Your task to perform on an android device: add a contact in the contacts app Image 0: 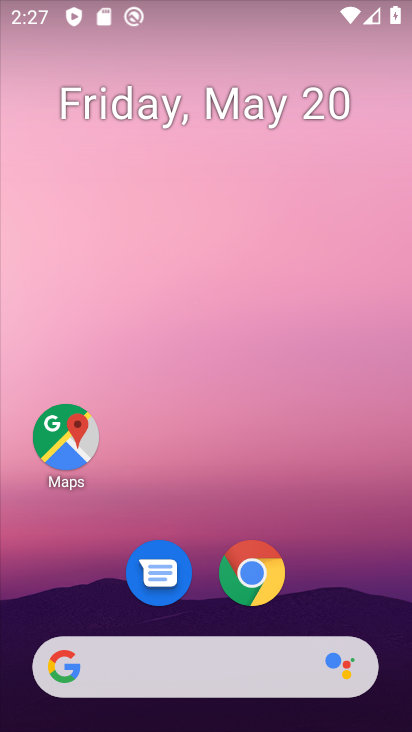
Step 0: drag from (326, 614) to (247, 71)
Your task to perform on an android device: add a contact in the contacts app Image 1: 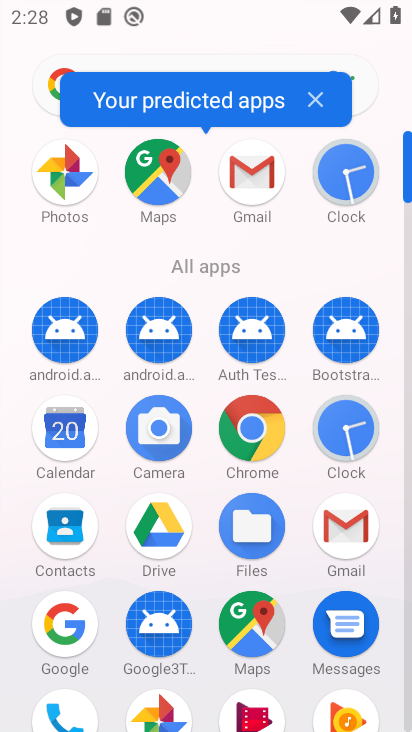
Step 1: click (60, 523)
Your task to perform on an android device: add a contact in the contacts app Image 2: 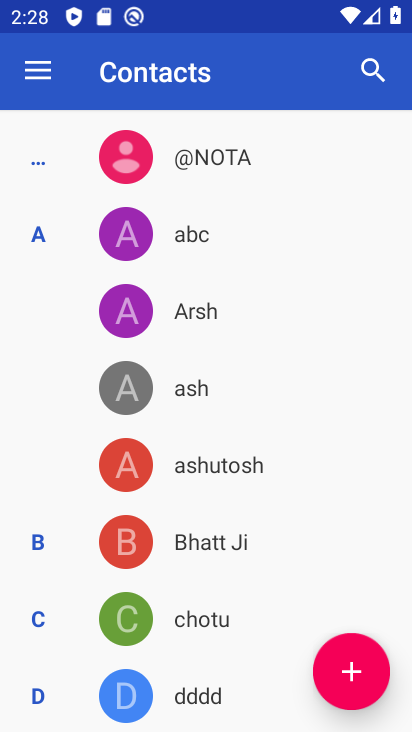
Step 2: click (347, 659)
Your task to perform on an android device: add a contact in the contacts app Image 3: 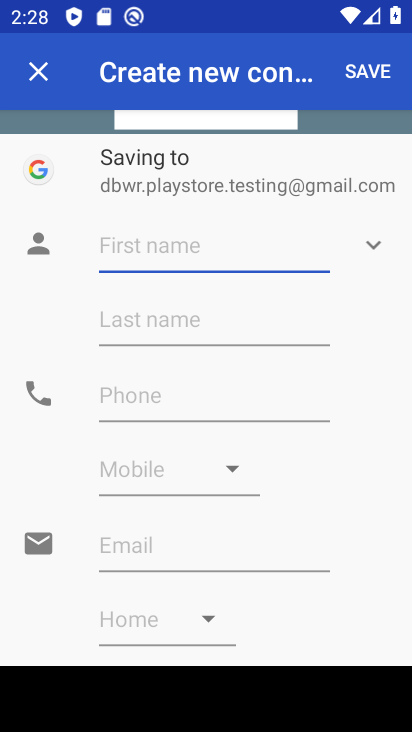
Step 3: click (250, 258)
Your task to perform on an android device: add a contact in the contacts app Image 4: 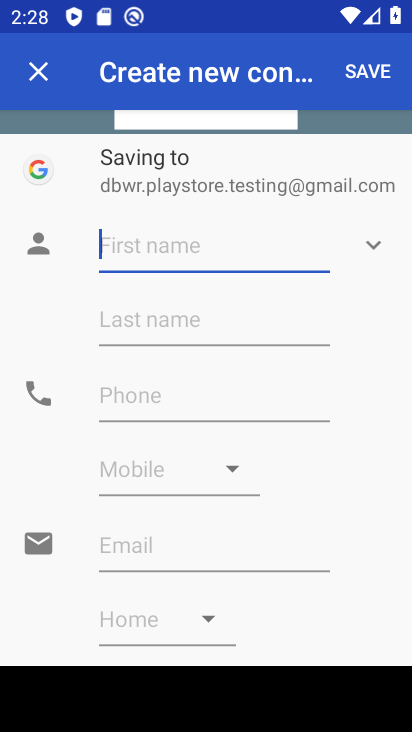
Step 4: type "bkhbkhb"
Your task to perform on an android device: add a contact in the contacts app Image 5: 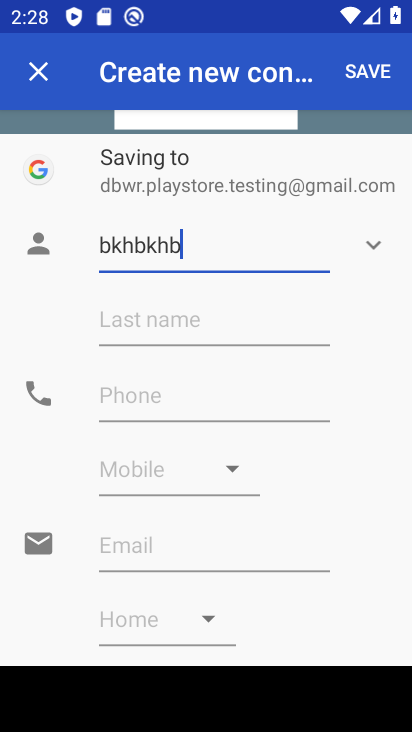
Step 5: click (242, 322)
Your task to perform on an android device: add a contact in the contacts app Image 6: 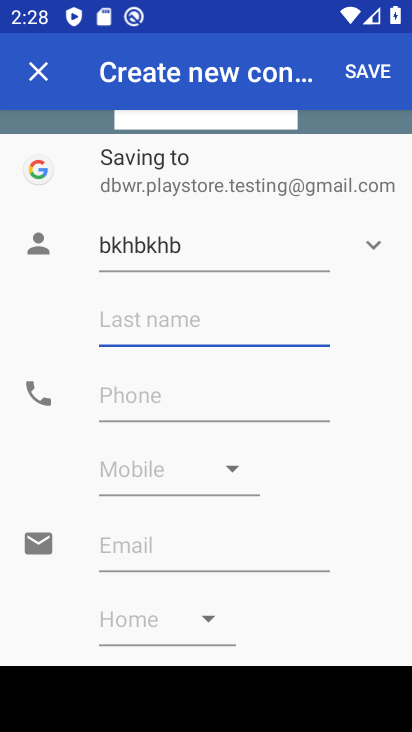
Step 6: click (247, 416)
Your task to perform on an android device: add a contact in the contacts app Image 7: 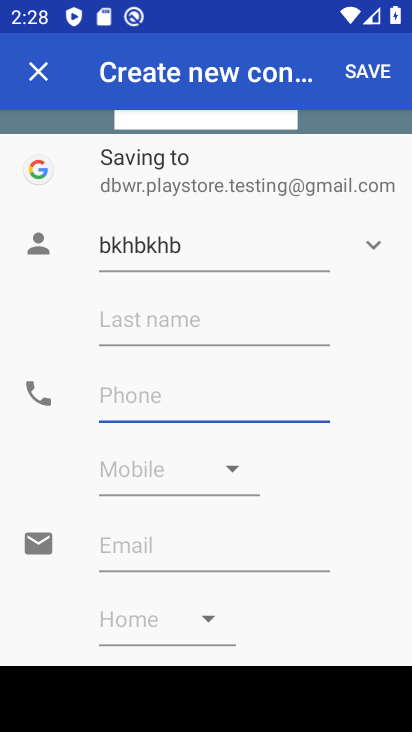
Step 7: type "8979878"
Your task to perform on an android device: add a contact in the contacts app Image 8: 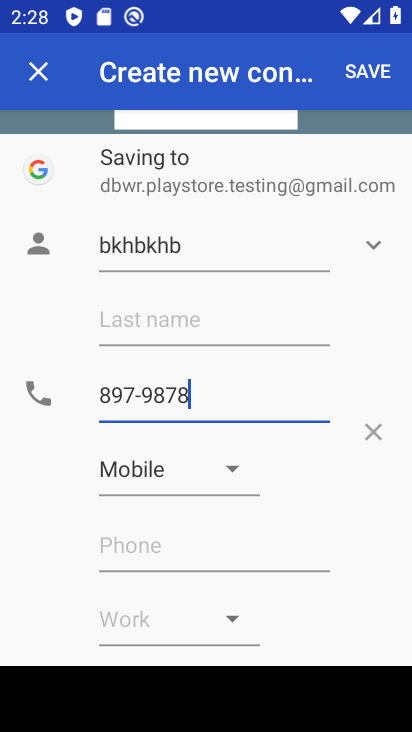
Step 8: click (372, 71)
Your task to perform on an android device: add a contact in the contacts app Image 9: 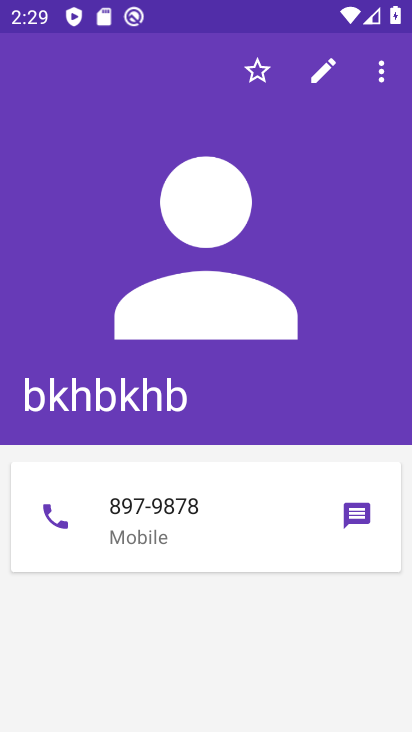
Step 9: task complete